Your task to perform on an android device: toggle notification dots Image 0: 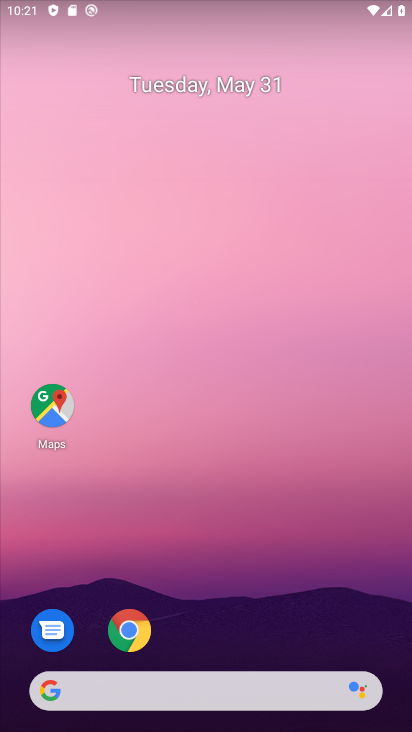
Step 0: drag from (240, 627) to (248, 110)
Your task to perform on an android device: toggle notification dots Image 1: 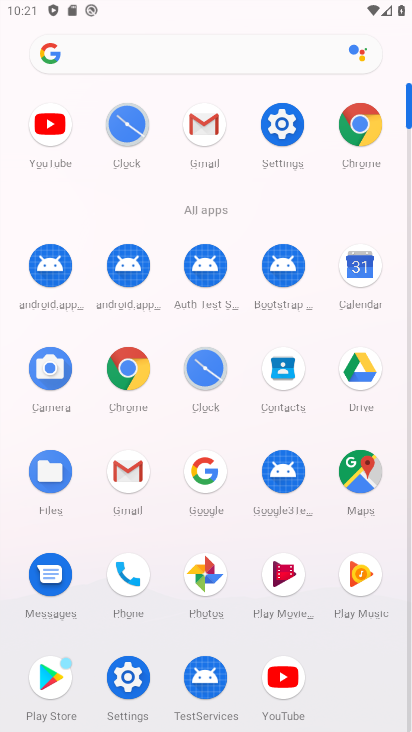
Step 1: click (280, 102)
Your task to perform on an android device: toggle notification dots Image 2: 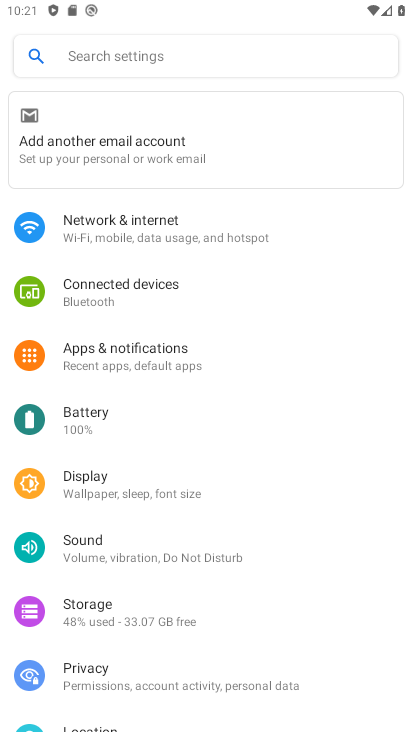
Step 2: click (154, 358)
Your task to perform on an android device: toggle notification dots Image 3: 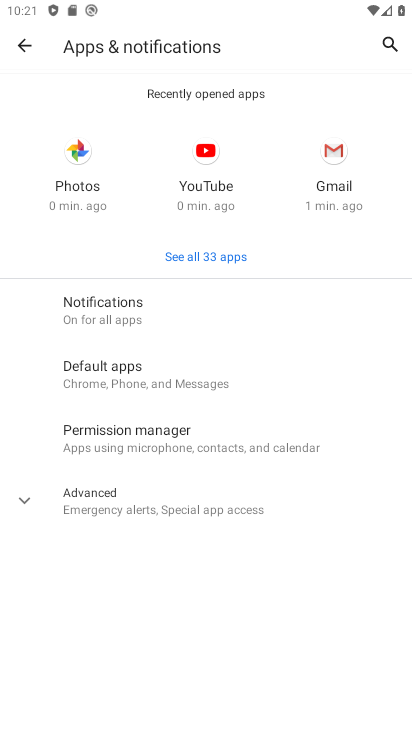
Step 3: click (121, 321)
Your task to perform on an android device: toggle notification dots Image 4: 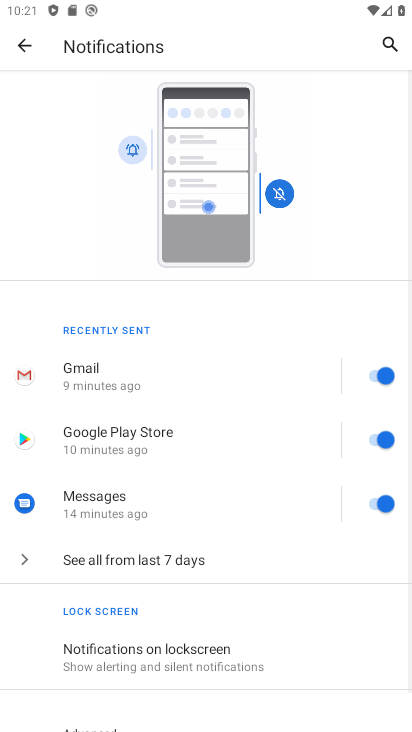
Step 4: drag from (263, 535) to (300, 118)
Your task to perform on an android device: toggle notification dots Image 5: 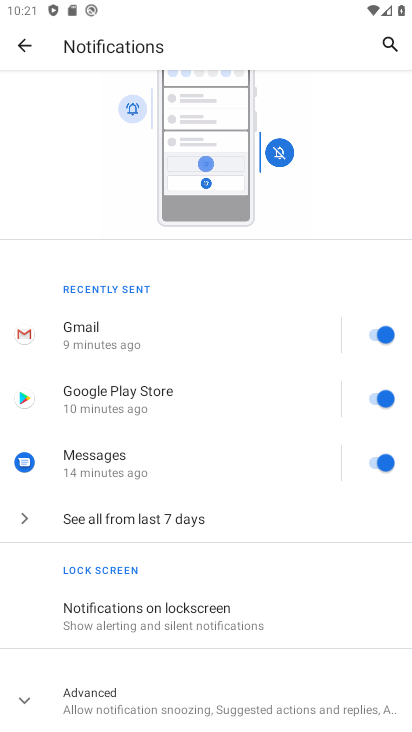
Step 5: click (93, 712)
Your task to perform on an android device: toggle notification dots Image 6: 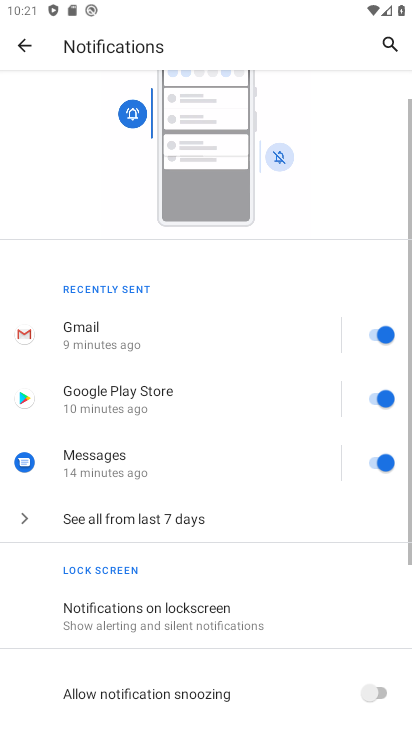
Step 6: drag from (141, 643) to (238, 188)
Your task to perform on an android device: toggle notification dots Image 7: 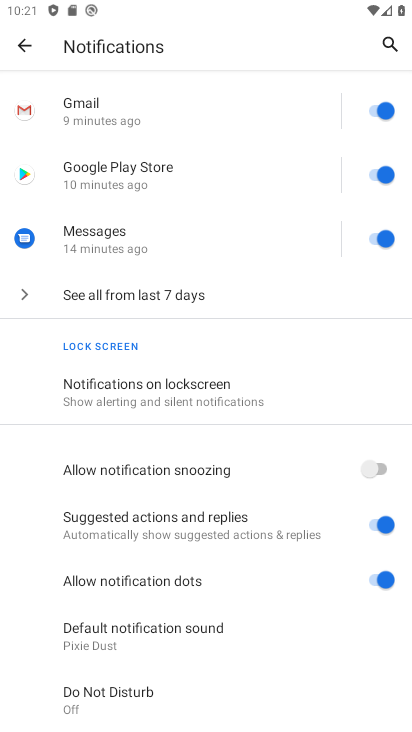
Step 7: click (388, 581)
Your task to perform on an android device: toggle notification dots Image 8: 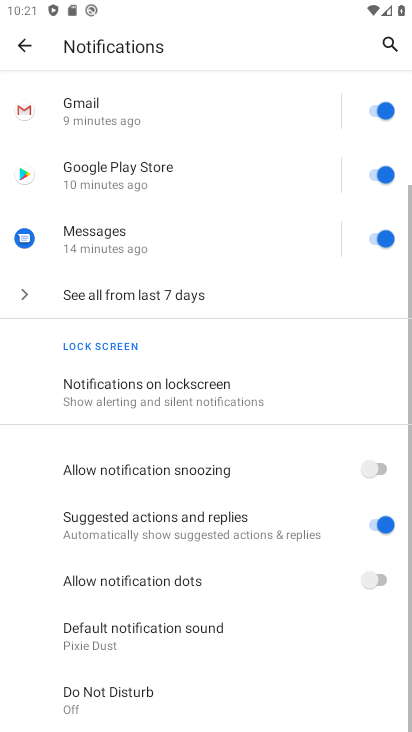
Step 8: task complete